Your task to perform on an android device: Go to network settings Image 0: 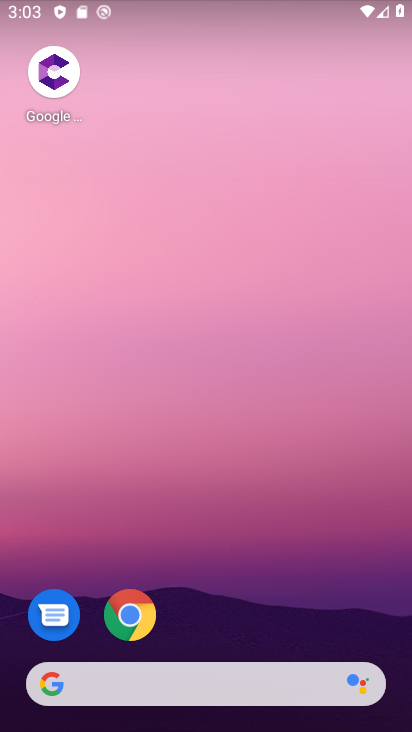
Step 0: drag from (321, 12) to (345, 530)
Your task to perform on an android device: Go to network settings Image 1: 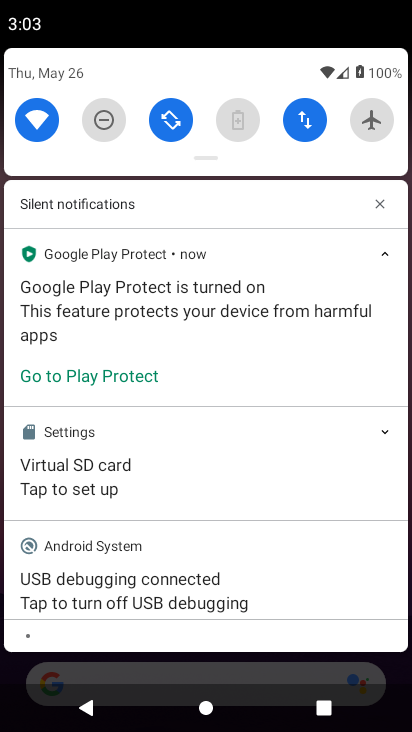
Step 1: drag from (294, 172) to (322, 512)
Your task to perform on an android device: Go to network settings Image 2: 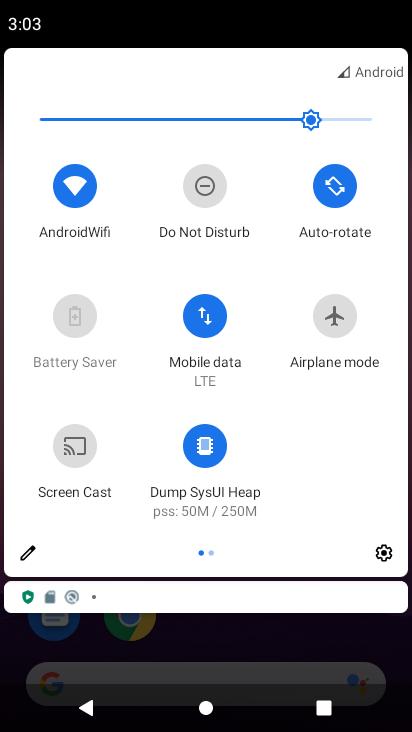
Step 2: click (392, 552)
Your task to perform on an android device: Go to network settings Image 3: 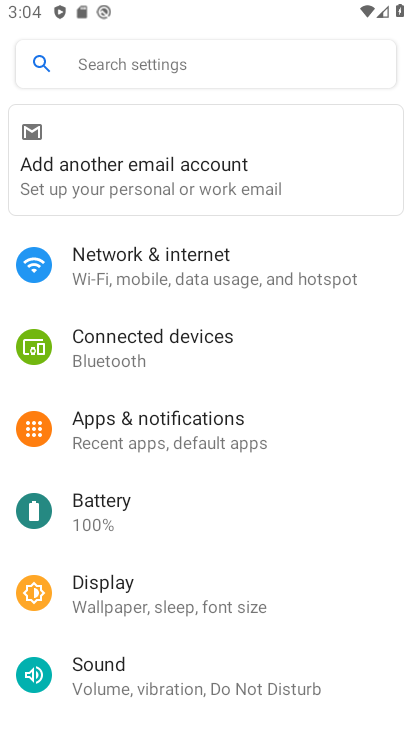
Step 3: click (198, 257)
Your task to perform on an android device: Go to network settings Image 4: 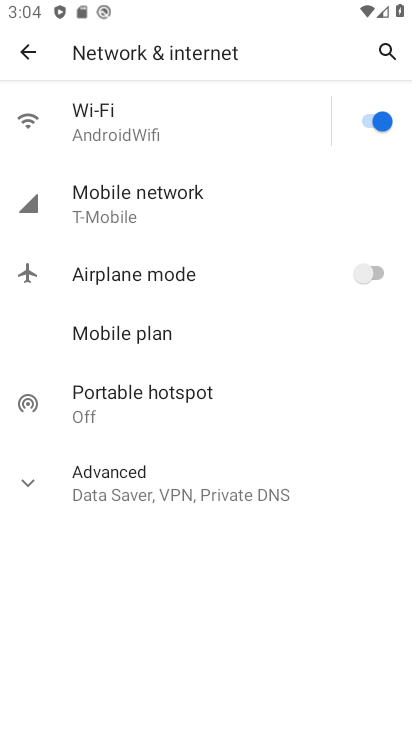
Step 4: task complete